Your task to perform on an android device: Open settings on Google Maps Image 0: 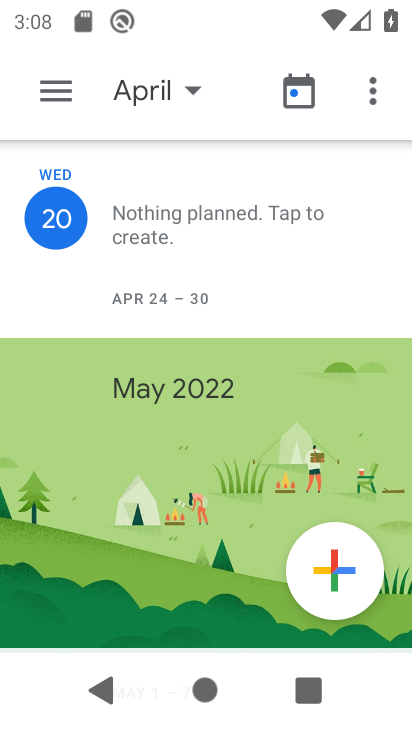
Step 0: press home button
Your task to perform on an android device: Open settings on Google Maps Image 1: 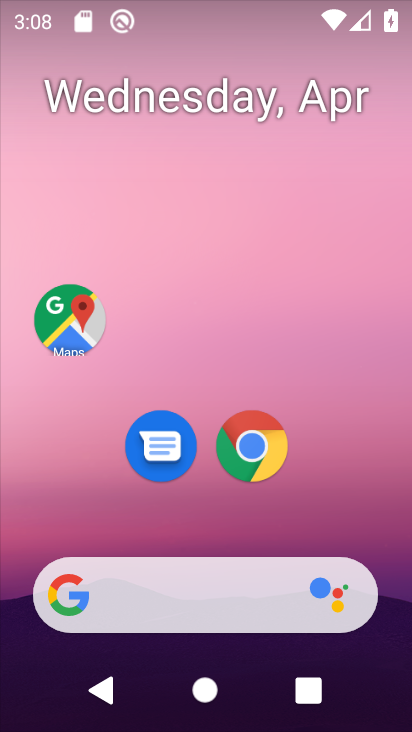
Step 1: click (65, 304)
Your task to perform on an android device: Open settings on Google Maps Image 2: 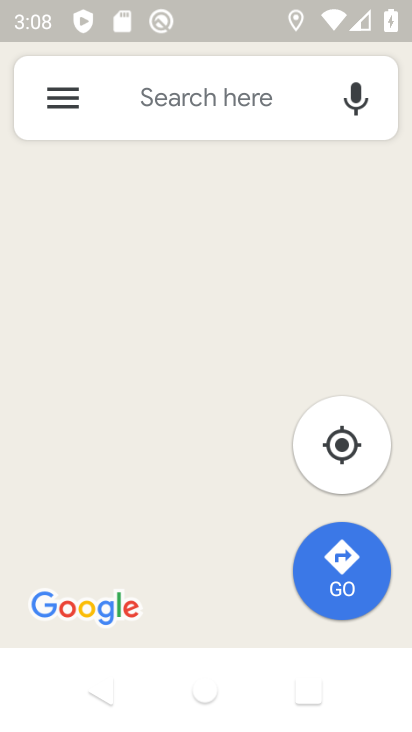
Step 2: click (73, 95)
Your task to perform on an android device: Open settings on Google Maps Image 3: 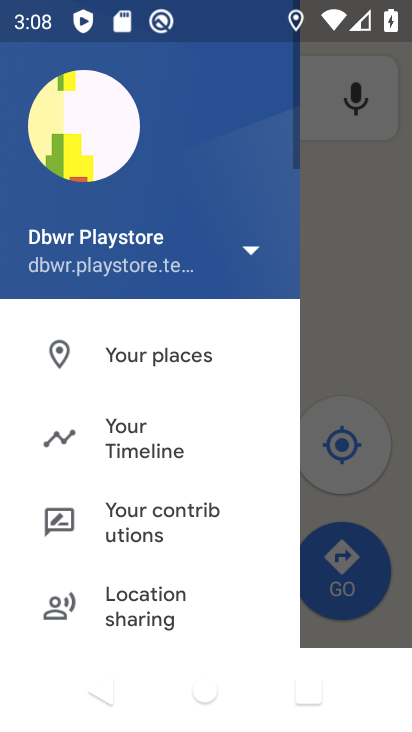
Step 3: drag from (130, 583) to (214, 61)
Your task to perform on an android device: Open settings on Google Maps Image 4: 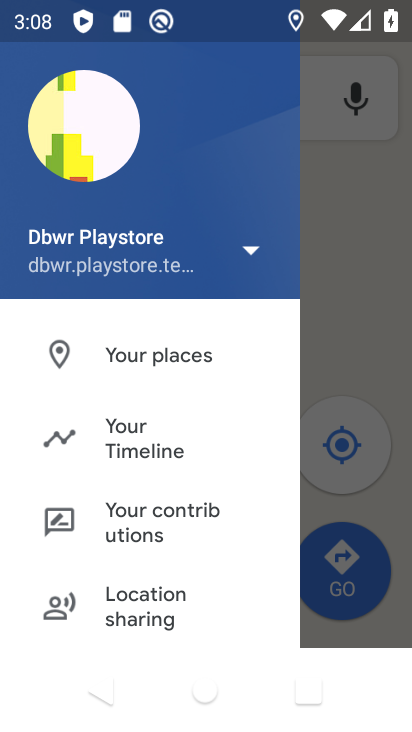
Step 4: drag from (131, 499) to (203, 139)
Your task to perform on an android device: Open settings on Google Maps Image 5: 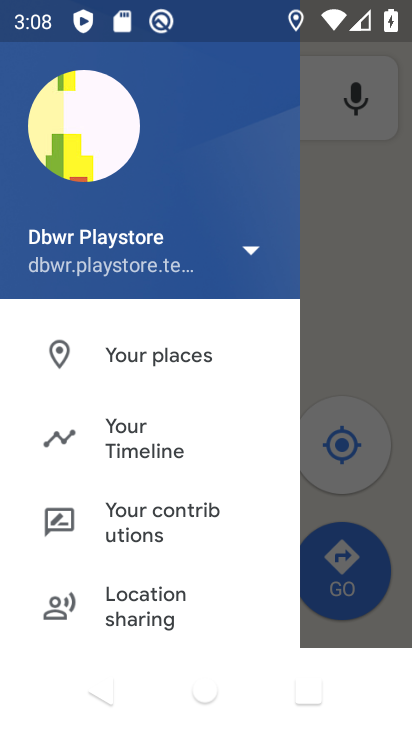
Step 5: drag from (129, 535) to (227, 108)
Your task to perform on an android device: Open settings on Google Maps Image 6: 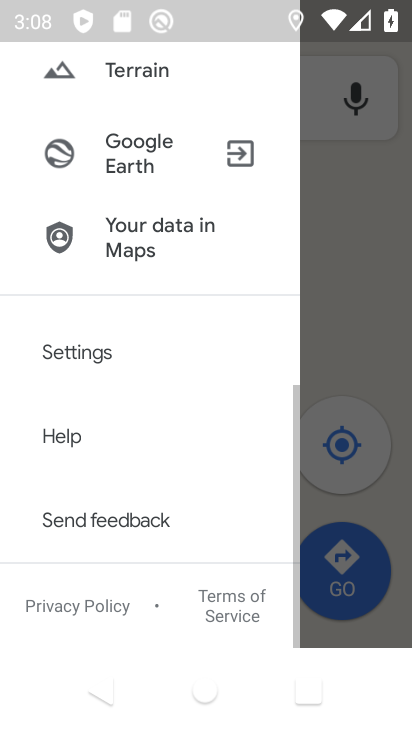
Step 6: click (94, 356)
Your task to perform on an android device: Open settings on Google Maps Image 7: 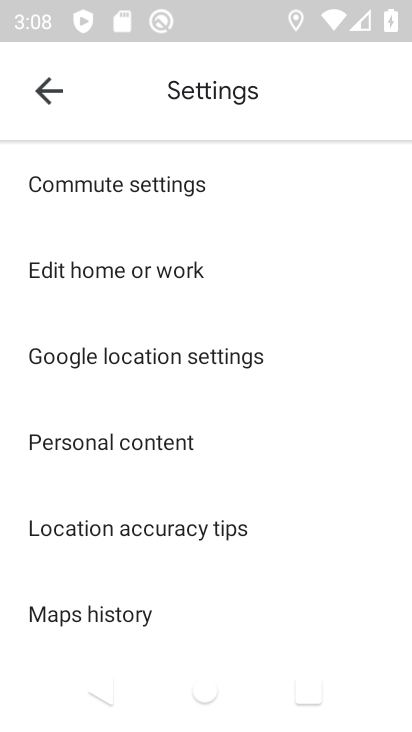
Step 7: task complete